Your task to perform on an android device: turn off picture-in-picture Image 0: 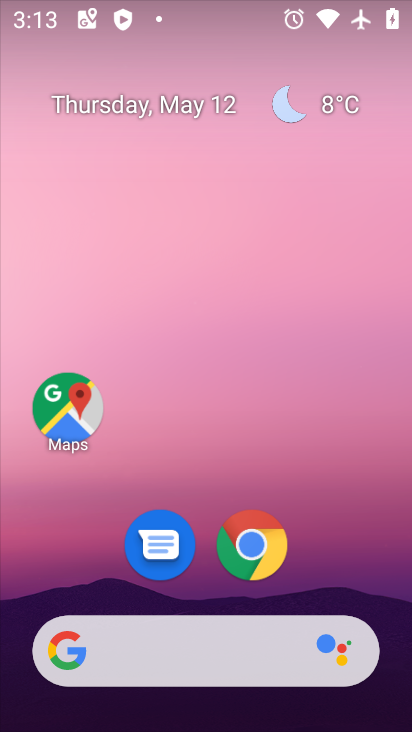
Step 0: drag from (383, 616) to (303, 111)
Your task to perform on an android device: turn off picture-in-picture Image 1: 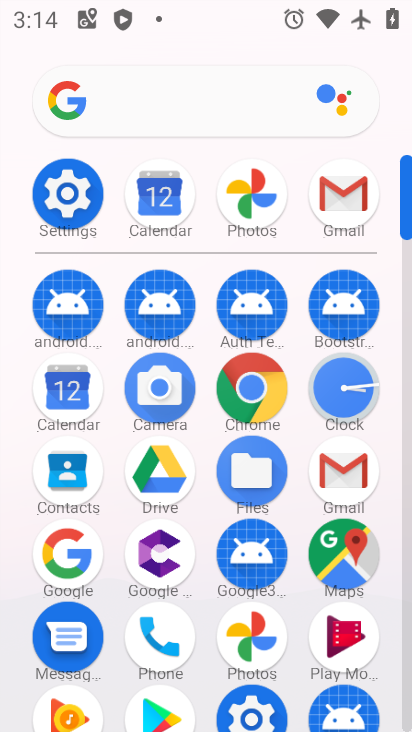
Step 1: click (407, 684)
Your task to perform on an android device: turn off picture-in-picture Image 2: 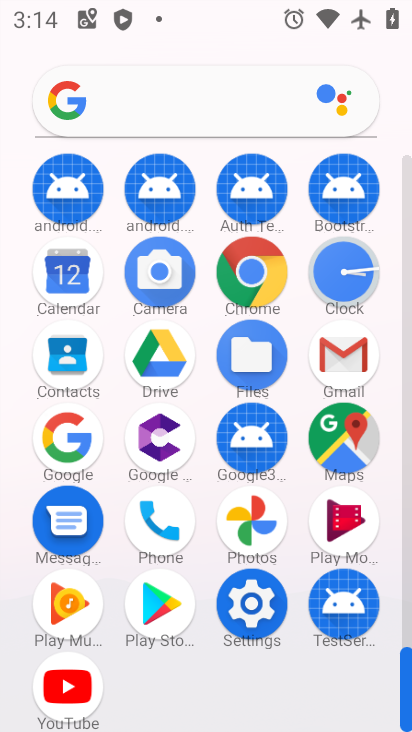
Step 2: click (245, 598)
Your task to perform on an android device: turn off picture-in-picture Image 3: 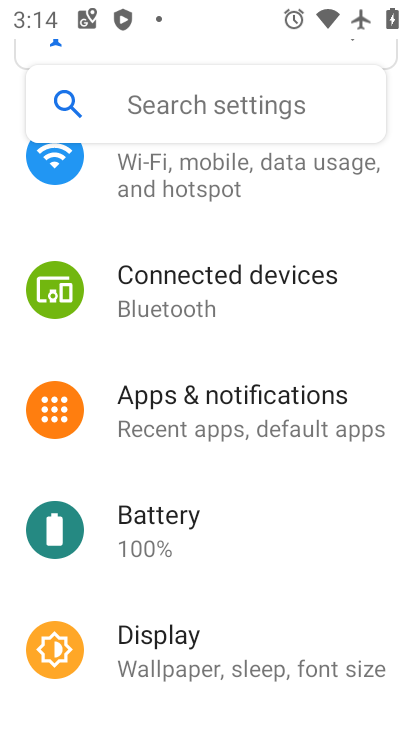
Step 3: click (217, 389)
Your task to perform on an android device: turn off picture-in-picture Image 4: 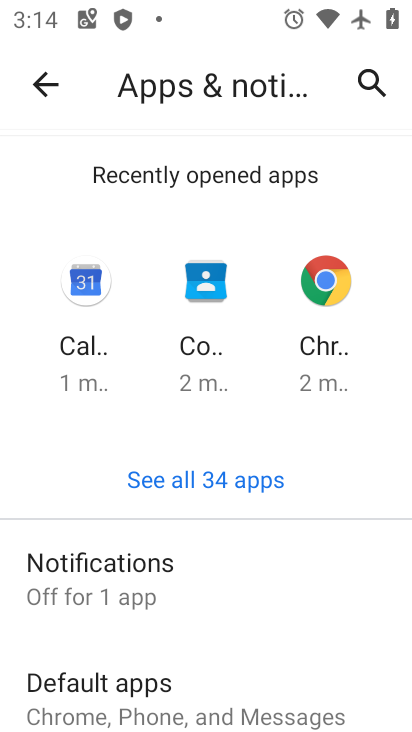
Step 4: drag from (208, 608) to (320, 175)
Your task to perform on an android device: turn off picture-in-picture Image 5: 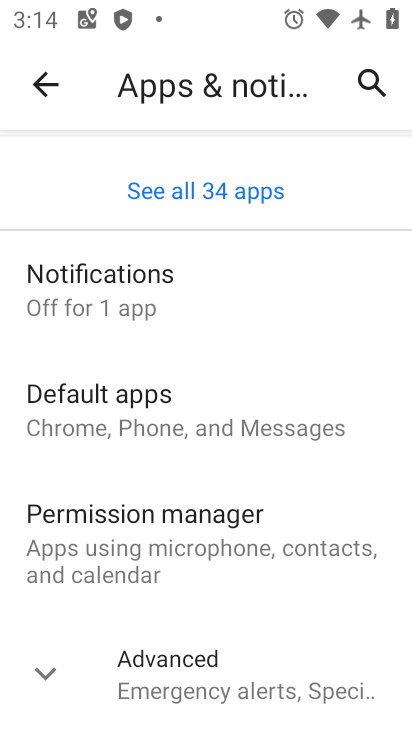
Step 5: click (28, 670)
Your task to perform on an android device: turn off picture-in-picture Image 6: 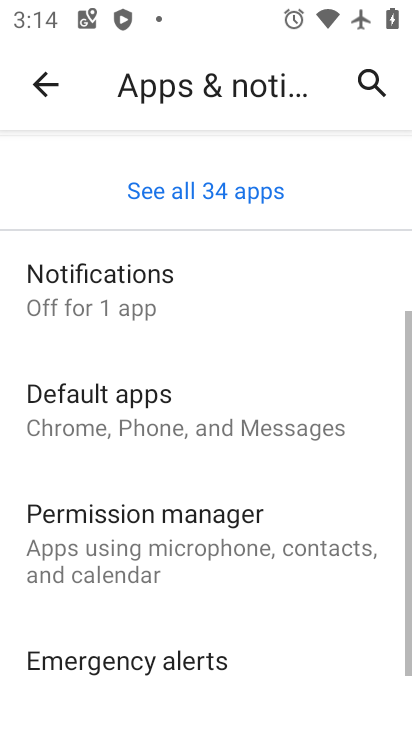
Step 6: drag from (281, 673) to (287, 270)
Your task to perform on an android device: turn off picture-in-picture Image 7: 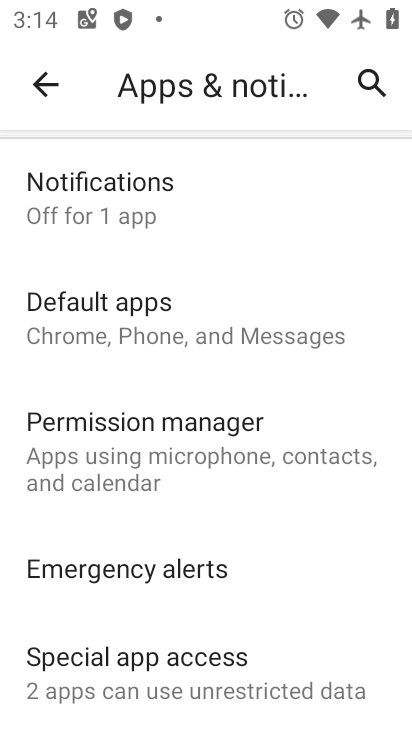
Step 7: click (160, 671)
Your task to perform on an android device: turn off picture-in-picture Image 8: 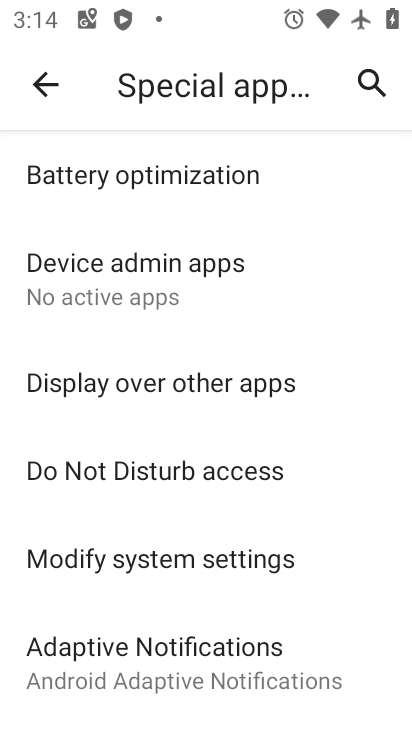
Step 8: drag from (306, 651) to (307, 187)
Your task to perform on an android device: turn off picture-in-picture Image 9: 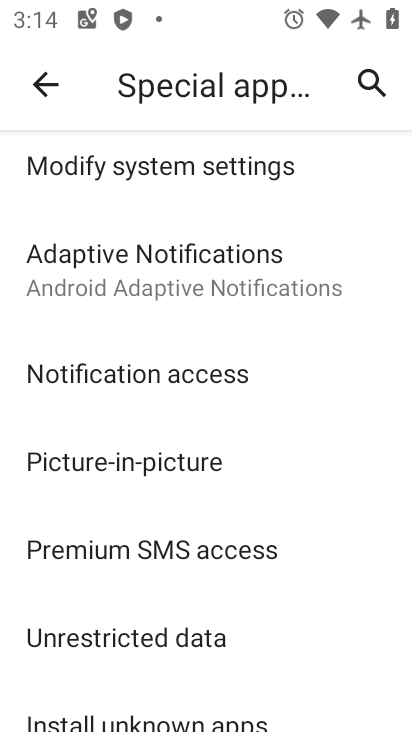
Step 9: click (121, 459)
Your task to perform on an android device: turn off picture-in-picture Image 10: 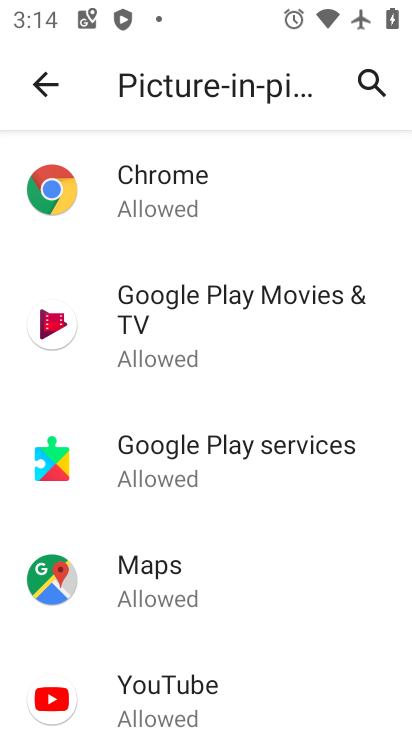
Step 10: drag from (330, 686) to (335, 334)
Your task to perform on an android device: turn off picture-in-picture Image 11: 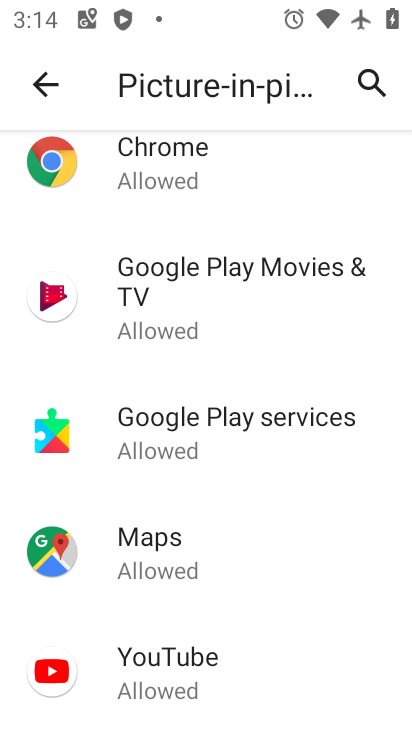
Step 11: click (162, 669)
Your task to perform on an android device: turn off picture-in-picture Image 12: 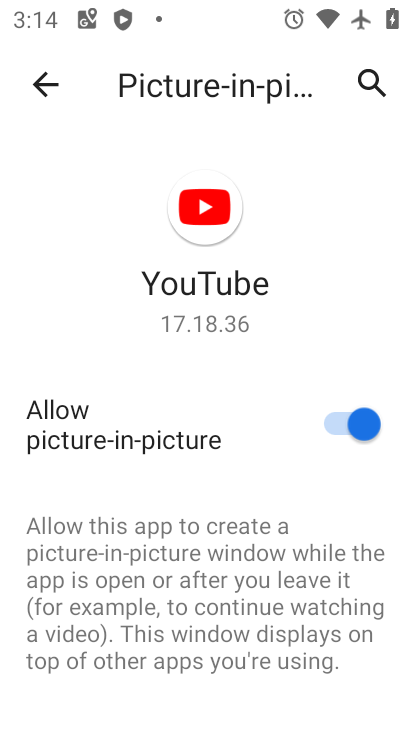
Step 12: click (334, 420)
Your task to perform on an android device: turn off picture-in-picture Image 13: 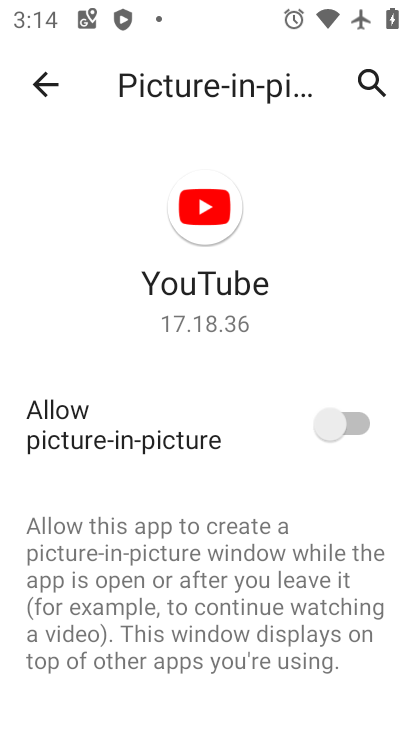
Step 13: task complete